Your task to perform on an android device: open a bookmark in the chrome app Image 0: 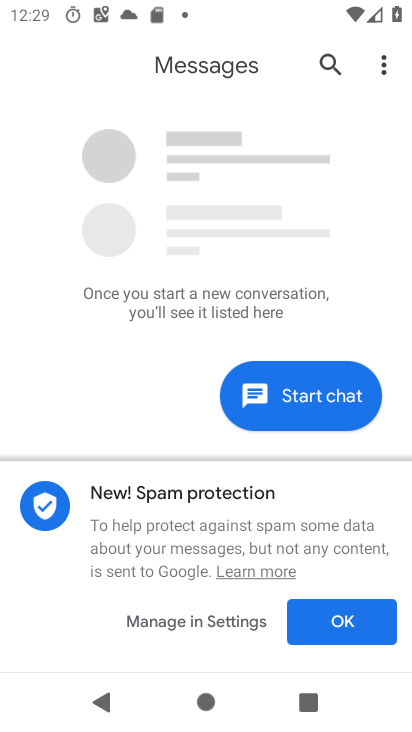
Step 0: press home button
Your task to perform on an android device: open a bookmark in the chrome app Image 1: 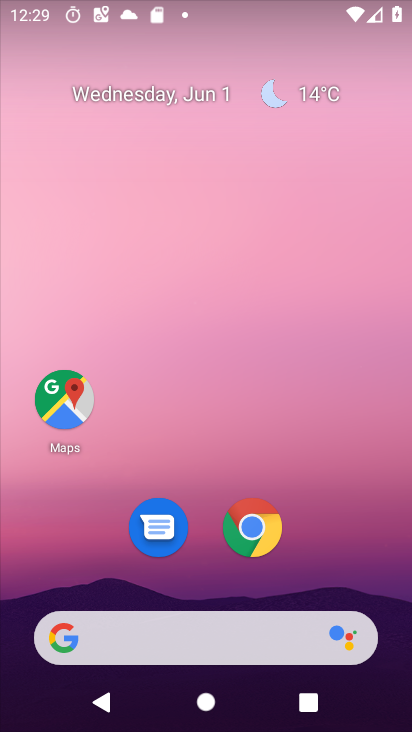
Step 1: click (255, 529)
Your task to perform on an android device: open a bookmark in the chrome app Image 2: 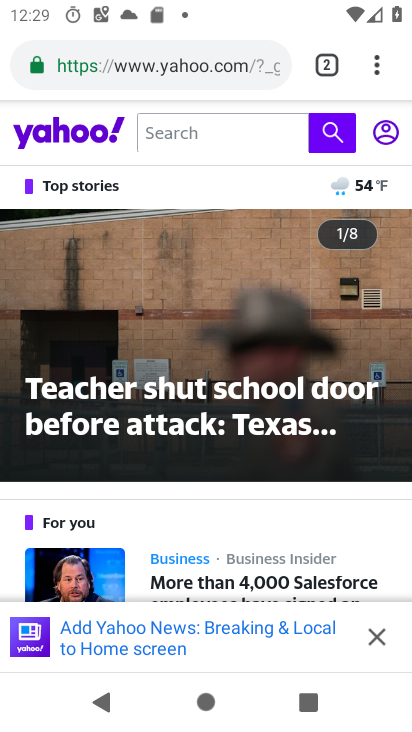
Step 2: click (378, 68)
Your task to perform on an android device: open a bookmark in the chrome app Image 3: 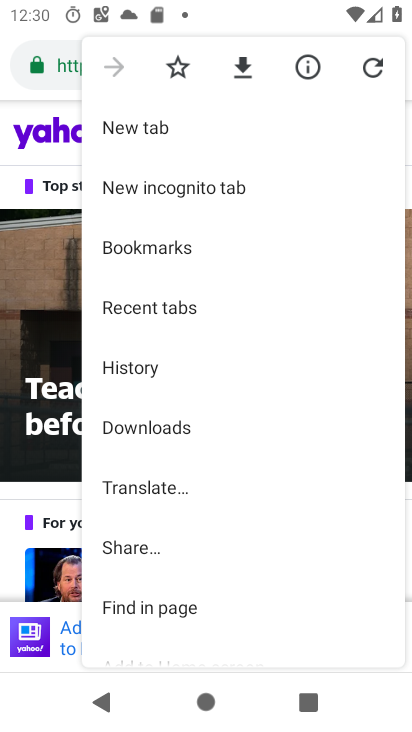
Step 3: click (141, 251)
Your task to perform on an android device: open a bookmark in the chrome app Image 4: 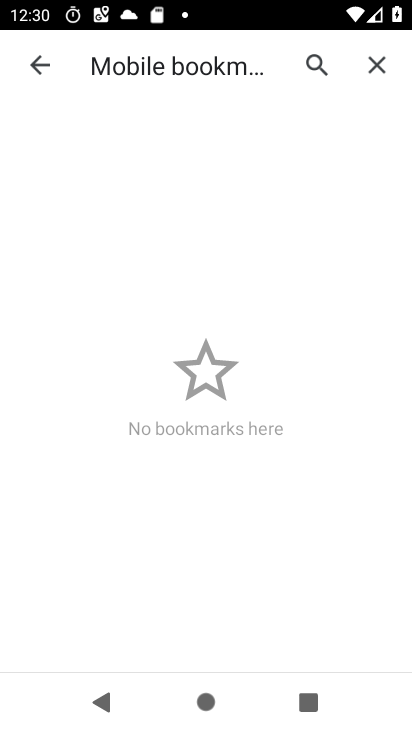
Step 4: task complete